Your task to perform on an android device: change the clock display to digital Image 0: 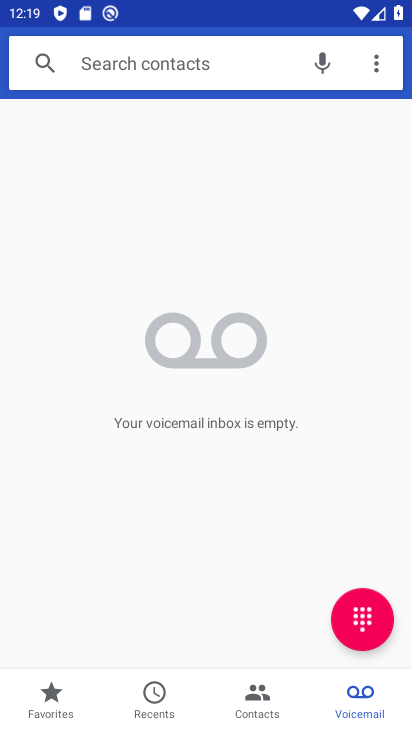
Step 0: press home button
Your task to perform on an android device: change the clock display to digital Image 1: 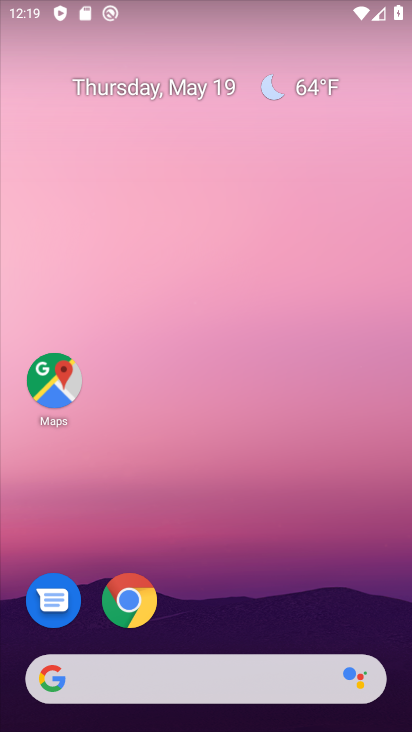
Step 1: drag from (206, 641) to (180, 9)
Your task to perform on an android device: change the clock display to digital Image 2: 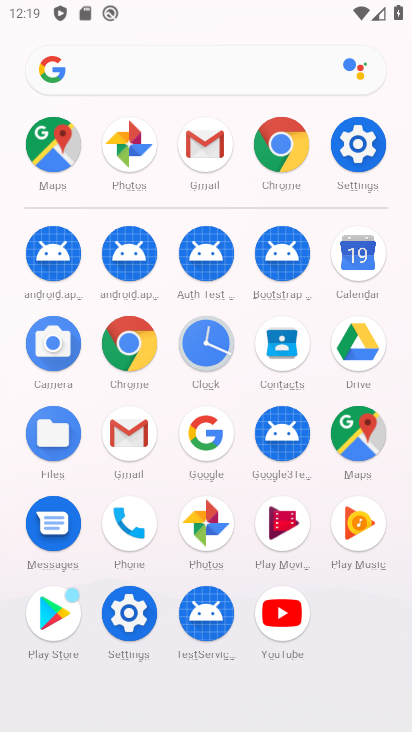
Step 2: click (208, 340)
Your task to perform on an android device: change the clock display to digital Image 3: 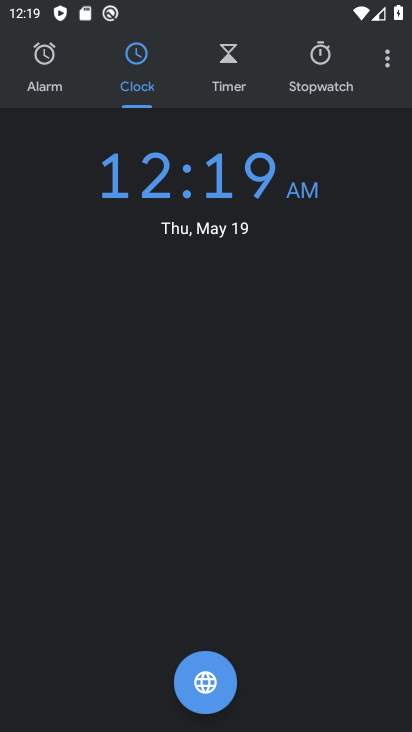
Step 3: click (386, 68)
Your task to perform on an android device: change the clock display to digital Image 4: 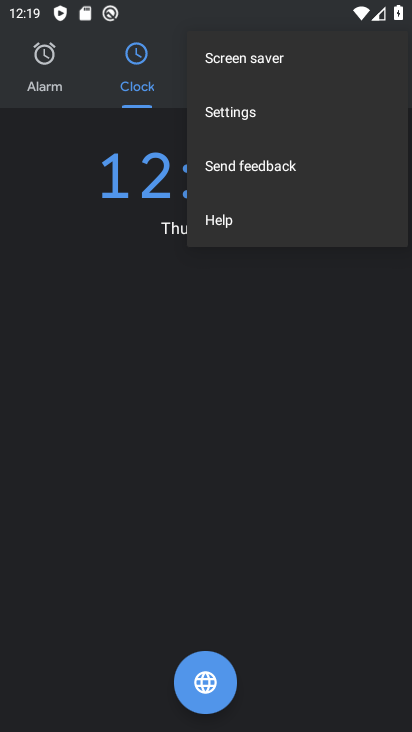
Step 4: click (241, 101)
Your task to perform on an android device: change the clock display to digital Image 5: 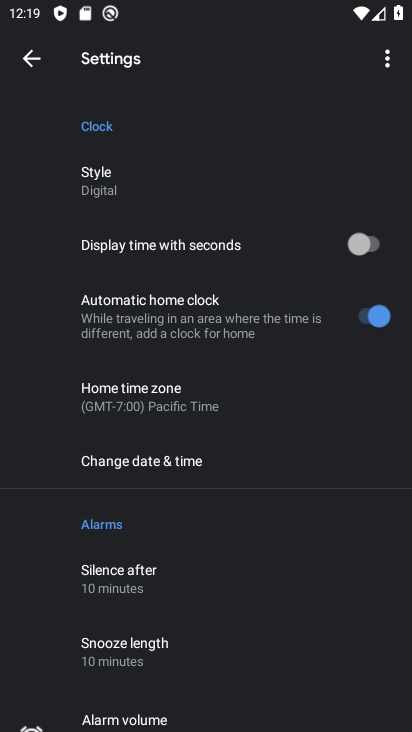
Step 5: click (114, 194)
Your task to perform on an android device: change the clock display to digital Image 6: 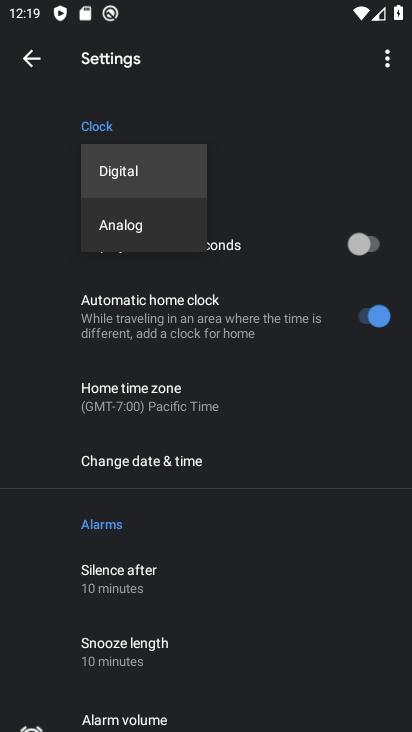
Step 6: click (125, 183)
Your task to perform on an android device: change the clock display to digital Image 7: 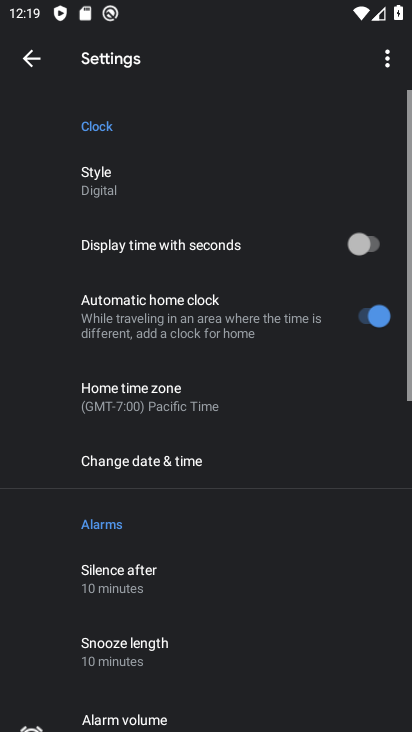
Step 7: task complete